Your task to perform on an android device: Go to Wikipedia Image 0: 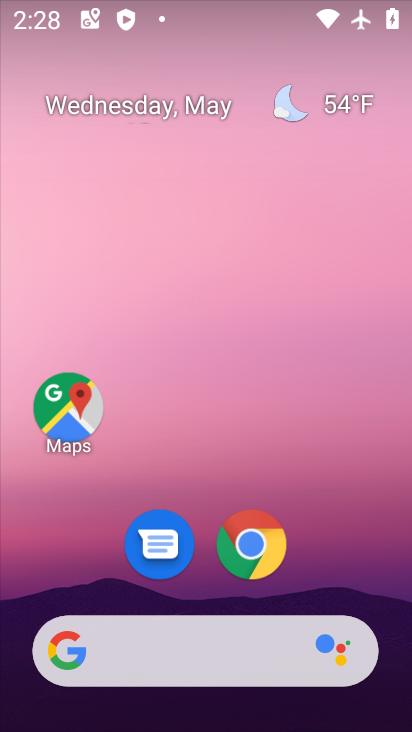
Step 0: drag from (362, 542) to (354, 117)
Your task to perform on an android device: Go to Wikipedia Image 1: 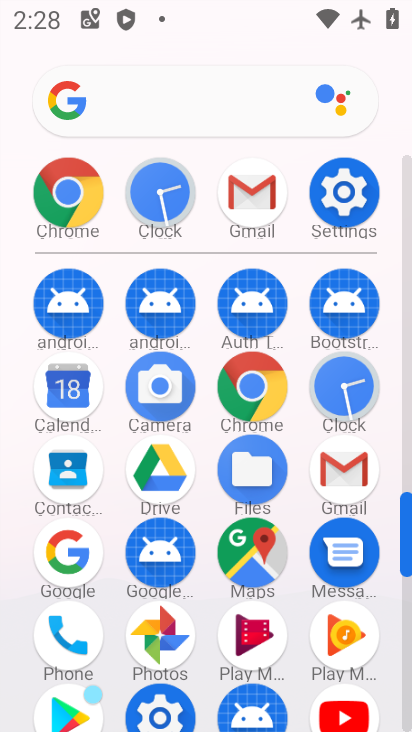
Step 1: click (251, 390)
Your task to perform on an android device: Go to Wikipedia Image 2: 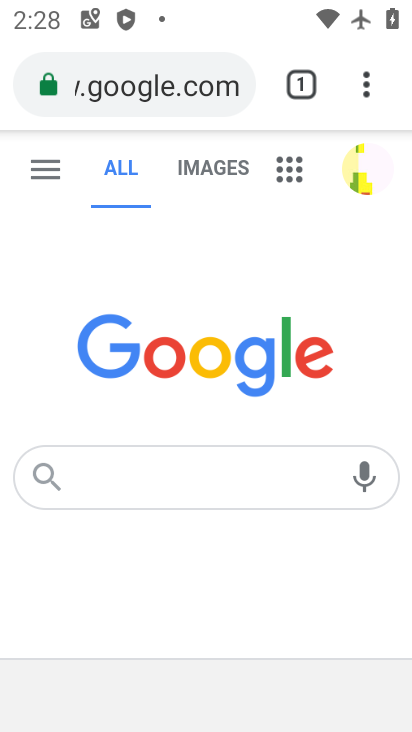
Step 2: click (171, 484)
Your task to perform on an android device: Go to Wikipedia Image 3: 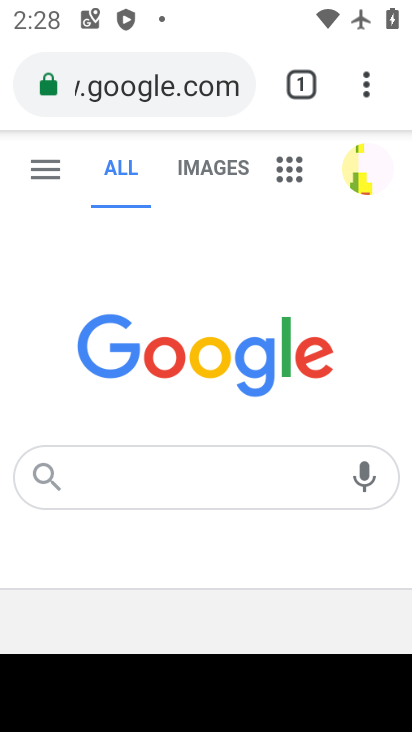
Step 3: type "wikipedia"
Your task to perform on an android device: Go to Wikipedia Image 4: 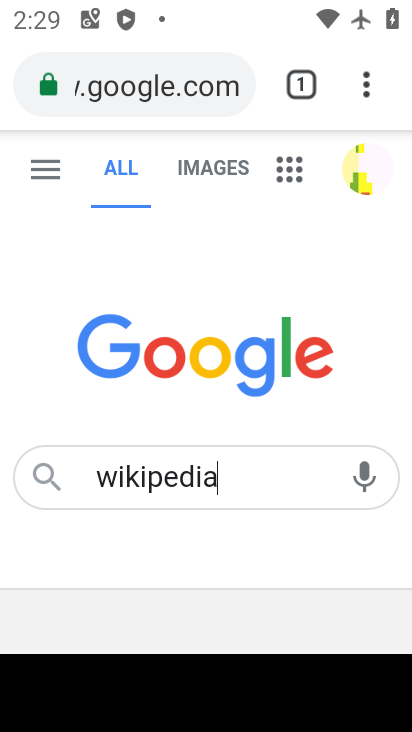
Step 4: click (250, 489)
Your task to perform on an android device: Go to Wikipedia Image 5: 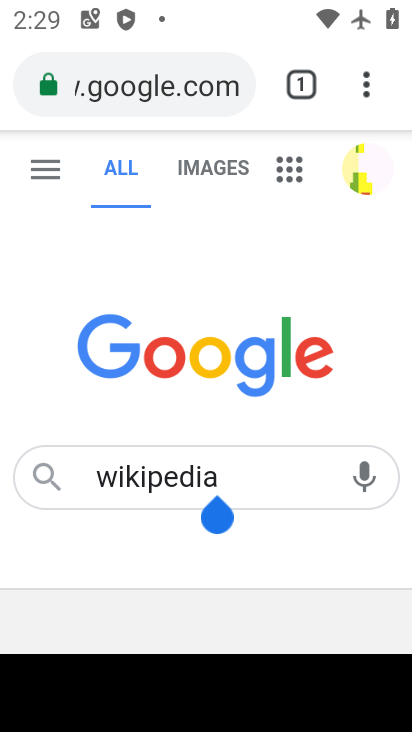
Step 5: click (155, 555)
Your task to perform on an android device: Go to Wikipedia Image 6: 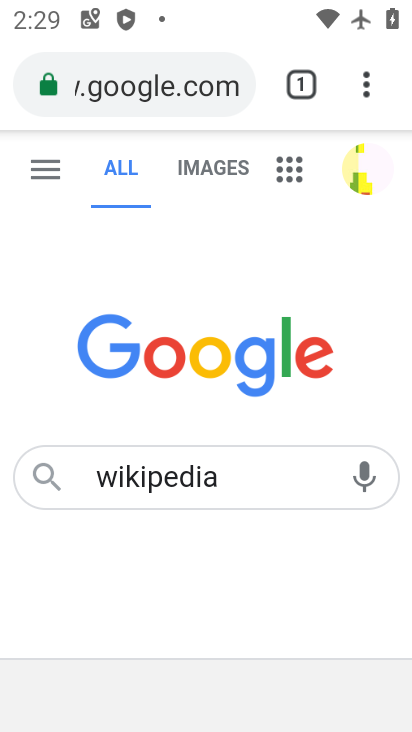
Step 6: task complete